Your task to perform on an android device: toggle airplane mode Image 0: 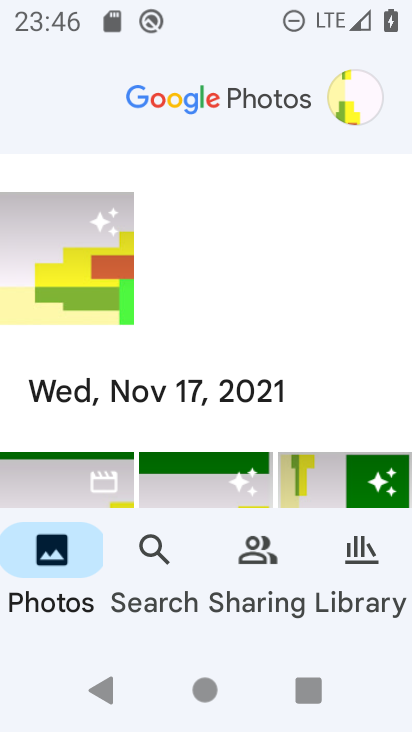
Step 0: drag from (285, 357) to (308, 54)
Your task to perform on an android device: toggle airplane mode Image 1: 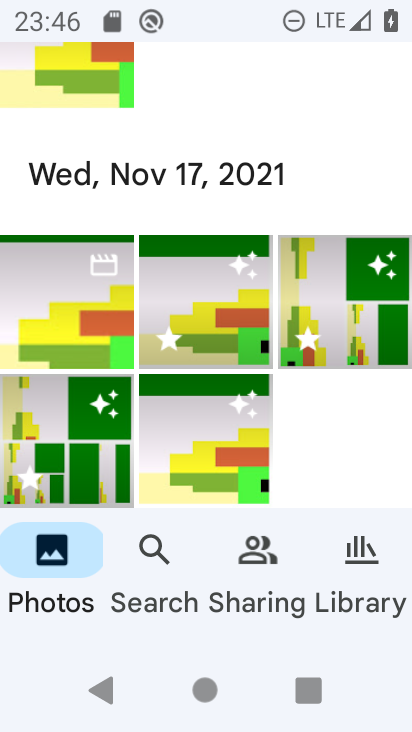
Step 1: press home button
Your task to perform on an android device: toggle airplane mode Image 2: 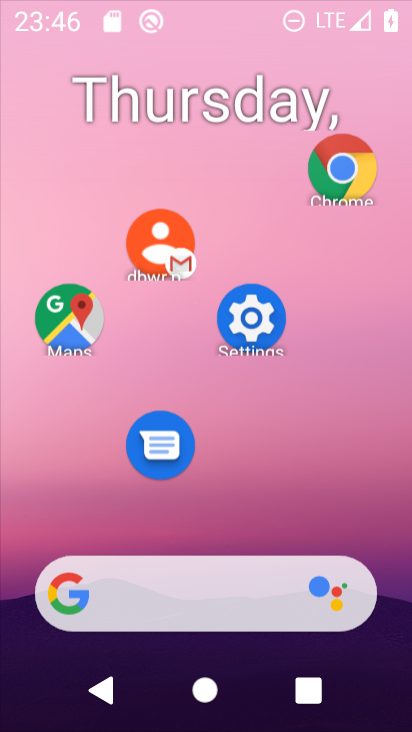
Step 2: drag from (228, 531) to (259, 143)
Your task to perform on an android device: toggle airplane mode Image 3: 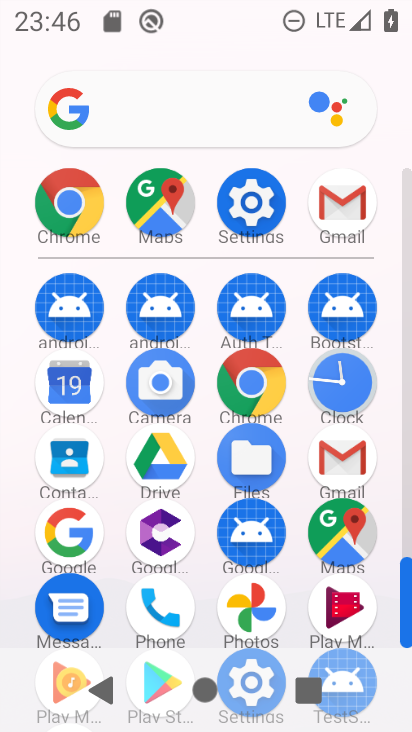
Step 3: click (250, 228)
Your task to perform on an android device: toggle airplane mode Image 4: 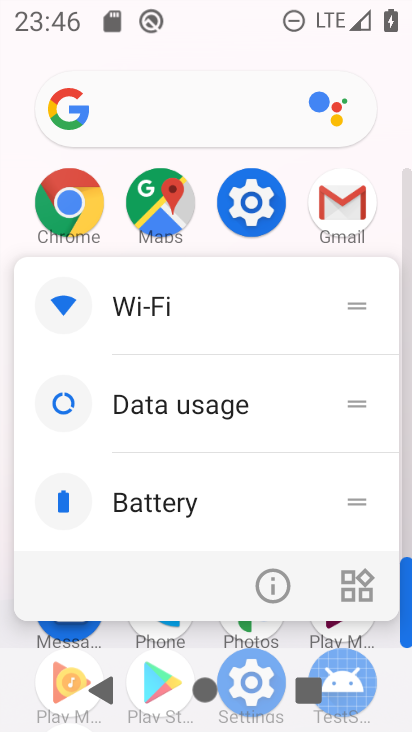
Step 4: click (285, 585)
Your task to perform on an android device: toggle airplane mode Image 5: 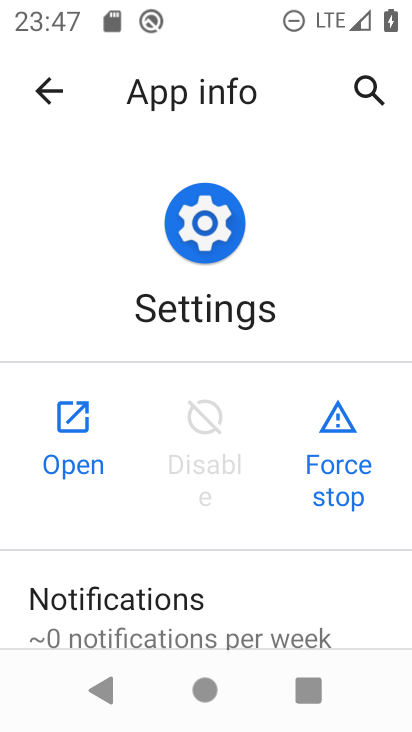
Step 5: click (66, 435)
Your task to perform on an android device: toggle airplane mode Image 6: 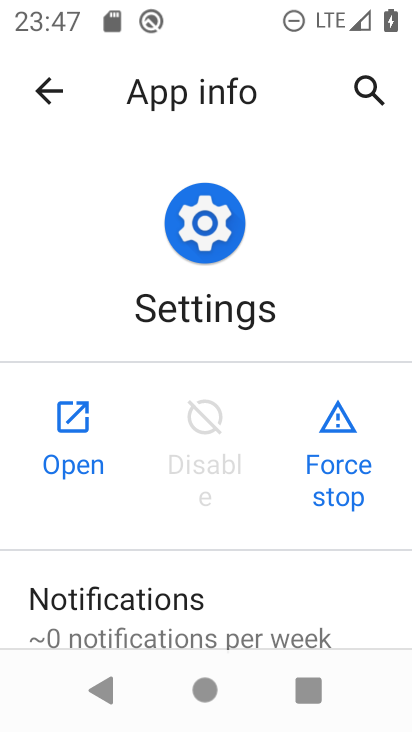
Step 6: click (66, 435)
Your task to perform on an android device: toggle airplane mode Image 7: 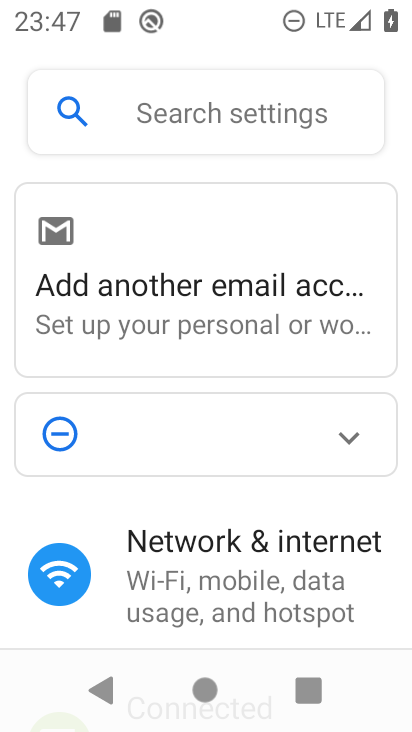
Step 7: click (254, 599)
Your task to perform on an android device: toggle airplane mode Image 8: 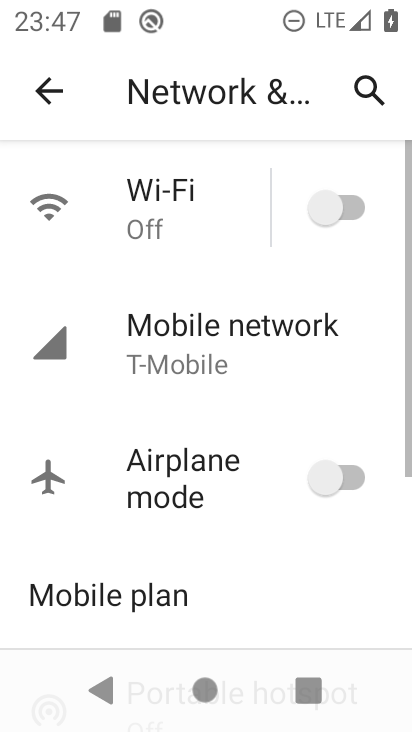
Step 8: drag from (236, 563) to (327, 280)
Your task to perform on an android device: toggle airplane mode Image 9: 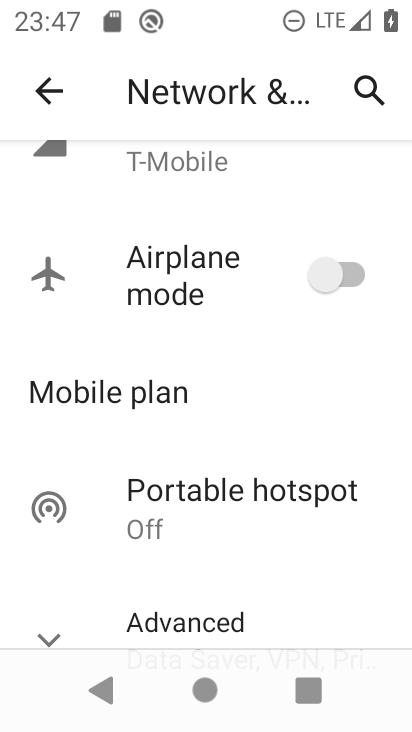
Step 9: click (257, 279)
Your task to perform on an android device: toggle airplane mode Image 10: 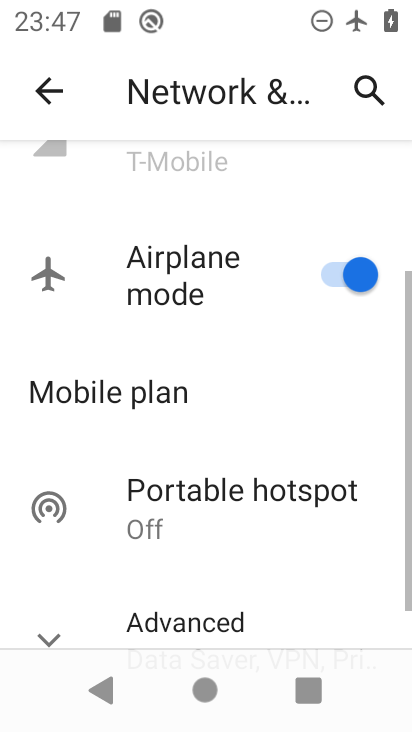
Step 10: task complete